Your task to perform on an android device: Go to notification settings Image 0: 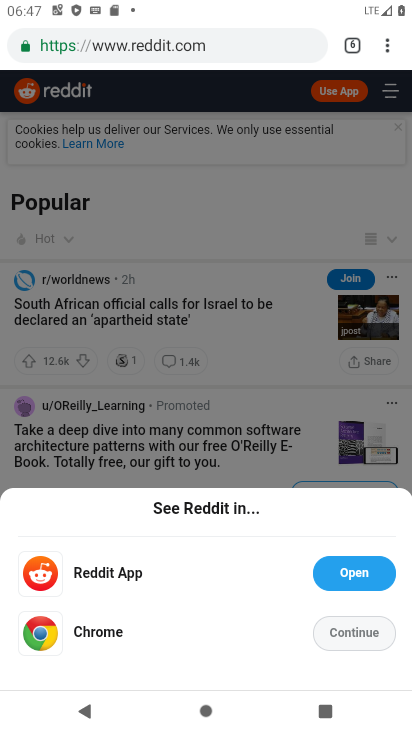
Step 0: press home button
Your task to perform on an android device: Go to notification settings Image 1: 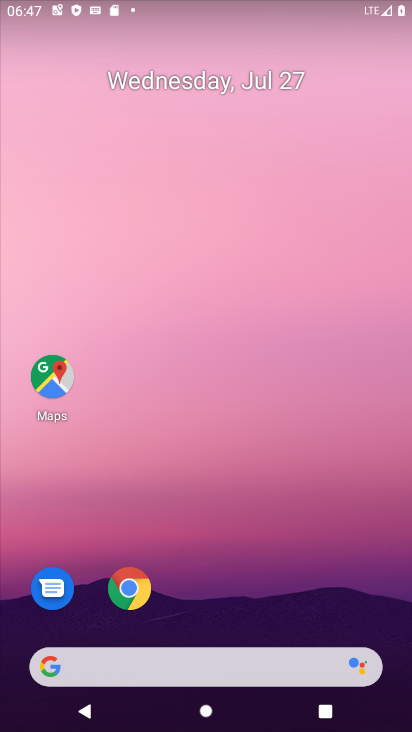
Step 1: drag from (131, 600) to (212, 0)
Your task to perform on an android device: Go to notification settings Image 2: 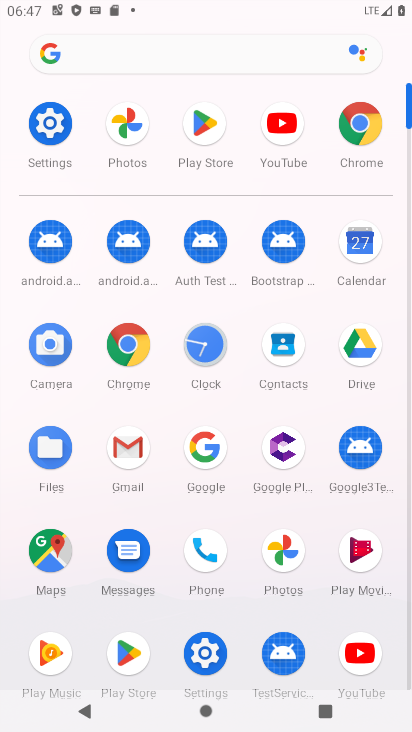
Step 2: click (50, 127)
Your task to perform on an android device: Go to notification settings Image 3: 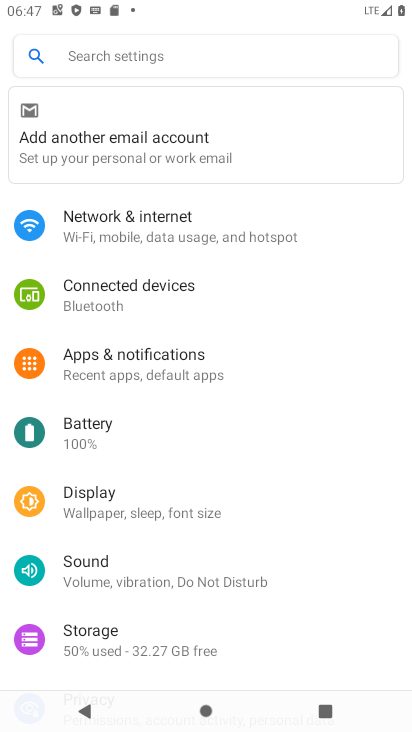
Step 3: click (163, 358)
Your task to perform on an android device: Go to notification settings Image 4: 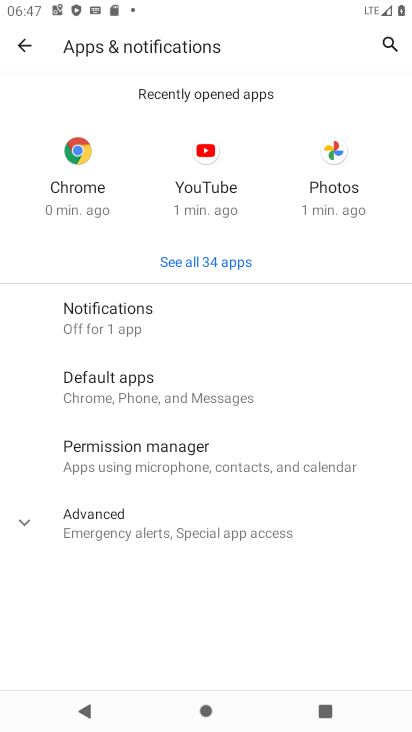
Step 4: task complete